Your task to perform on an android device: Go to wifi settings Image 0: 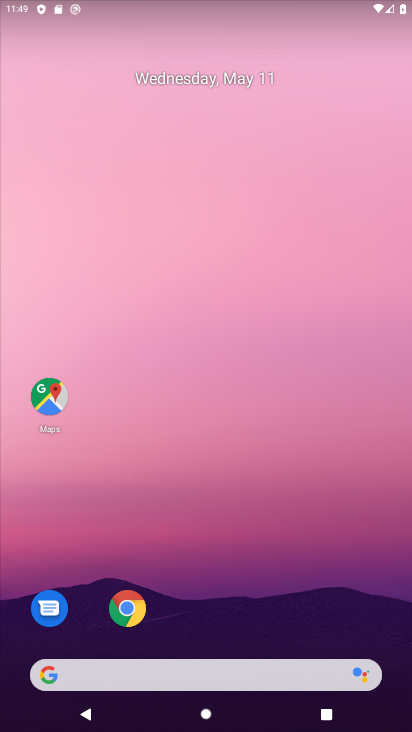
Step 0: drag from (283, 647) to (230, 24)
Your task to perform on an android device: Go to wifi settings Image 1: 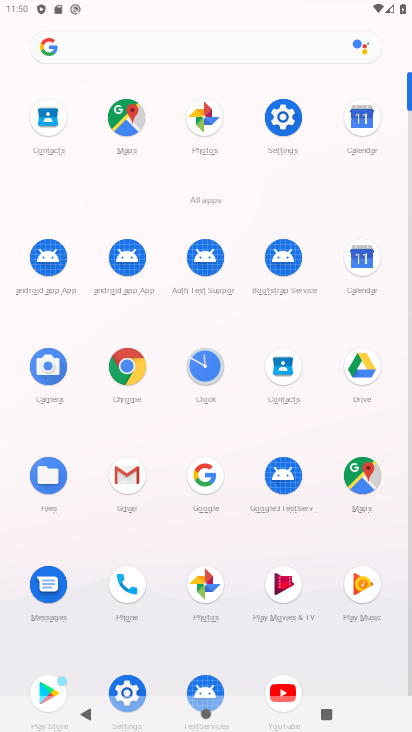
Step 1: click (283, 110)
Your task to perform on an android device: Go to wifi settings Image 2: 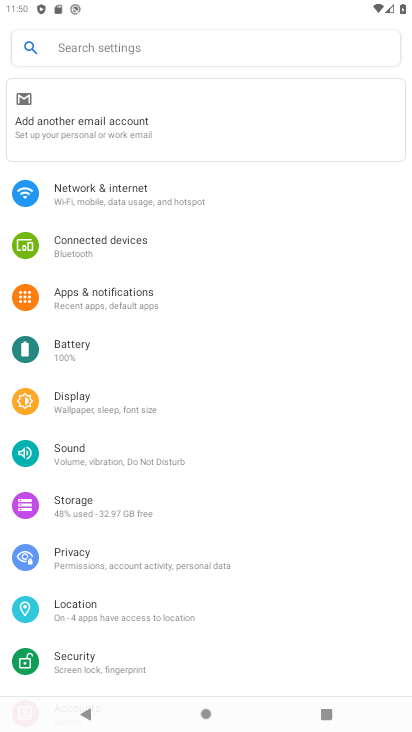
Step 2: click (110, 187)
Your task to perform on an android device: Go to wifi settings Image 3: 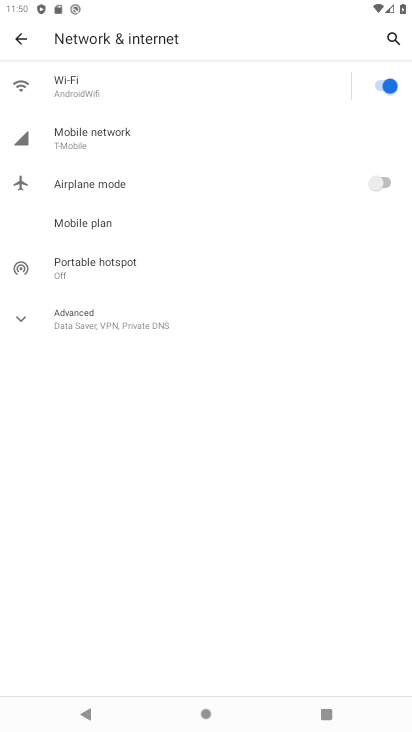
Step 3: click (72, 100)
Your task to perform on an android device: Go to wifi settings Image 4: 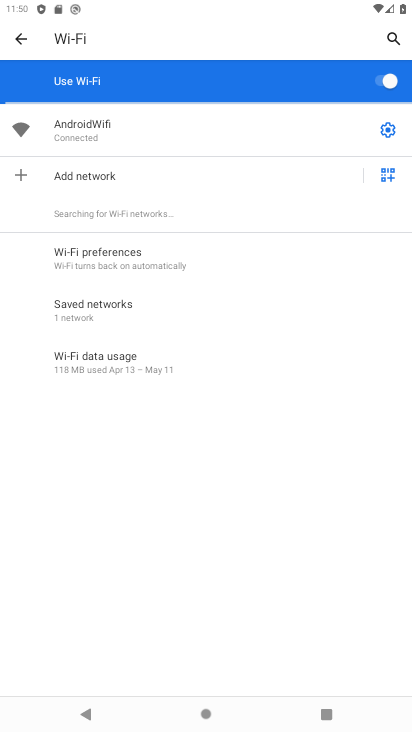
Step 4: task complete